Your task to perform on an android device: Open settings on Google Maps Image 0: 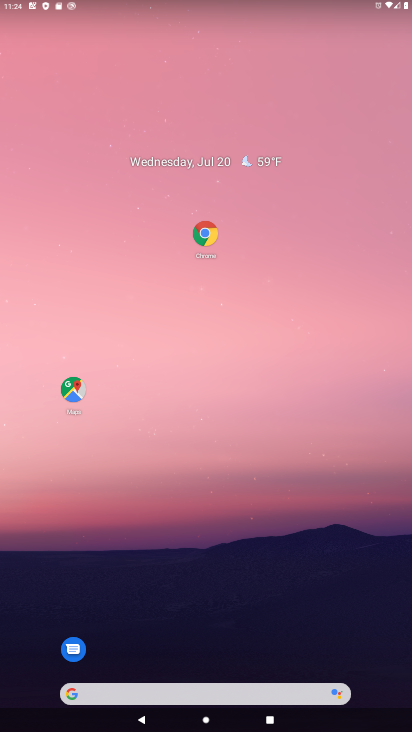
Step 0: drag from (211, 654) to (215, 155)
Your task to perform on an android device: Open settings on Google Maps Image 1: 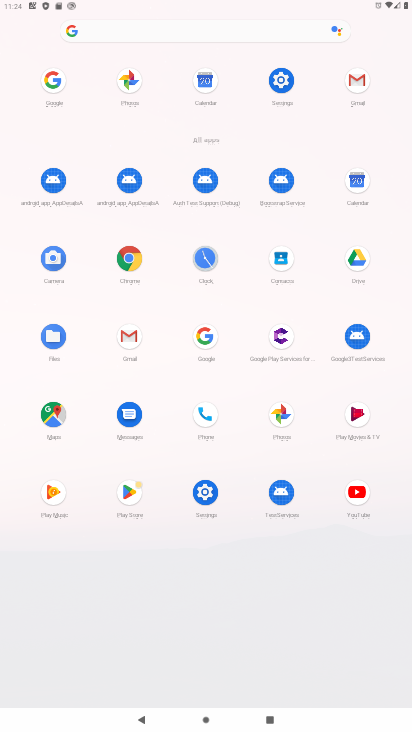
Step 1: click (54, 417)
Your task to perform on an android device: Open settings on Google Maps Image 2: 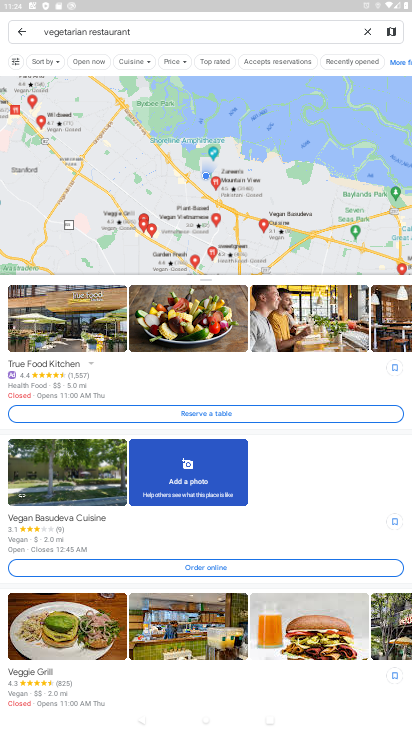
Step 2: click (363, 33)
Your task to perform on an android device: Open settings on Google Maps Image 3: 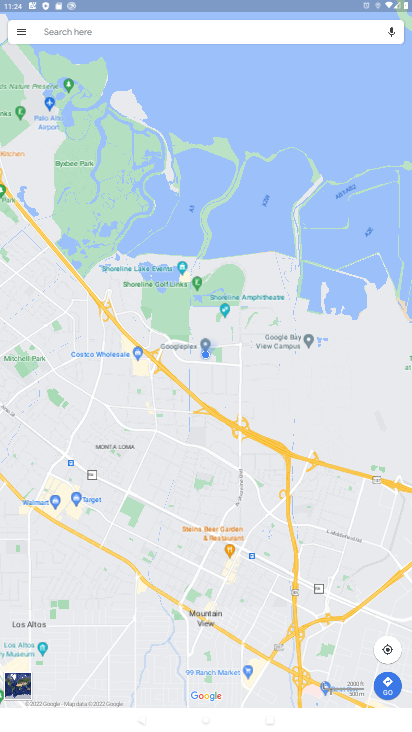
Step 3: click (17, 31)
Your task to perform on an android device: Open settings on Google Maps Image 4: 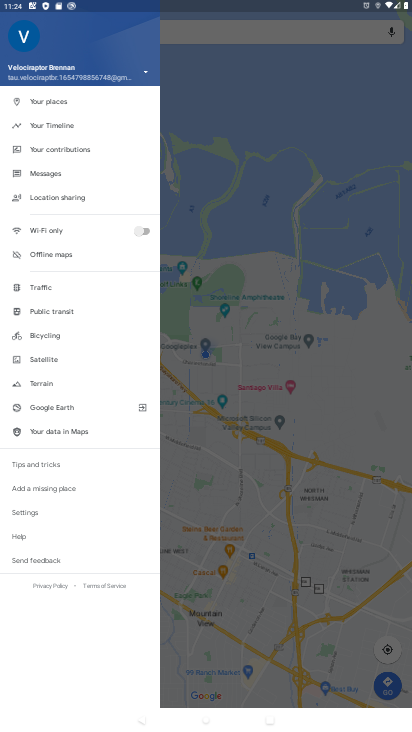
Step 4: click (21, 511)
Your task to perform on an android device: Open settings on Google Maps Image 5: 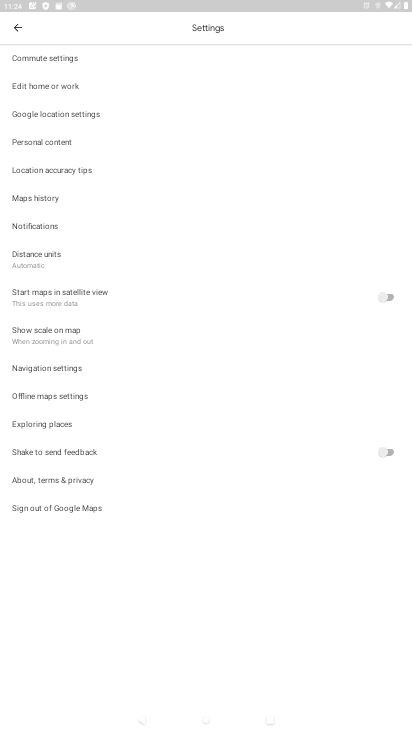
Step 5: task complete